Your task to perform on an android device: Open the calendar and show me this week's events? Image 0: 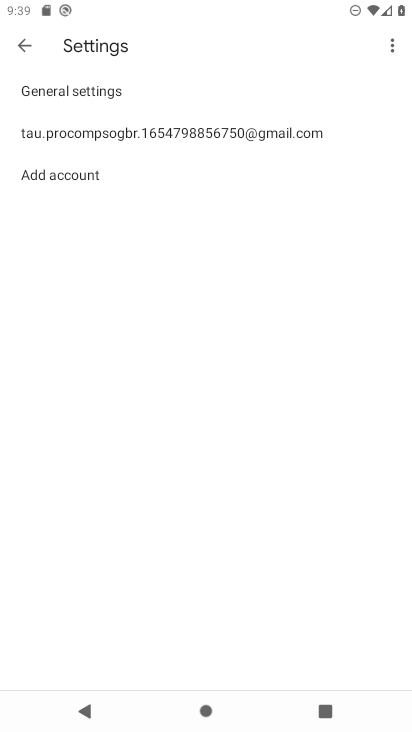
Step 0: press home button
Your task to perform on an android device: Open the calendar and show me this week's events? Image 1: 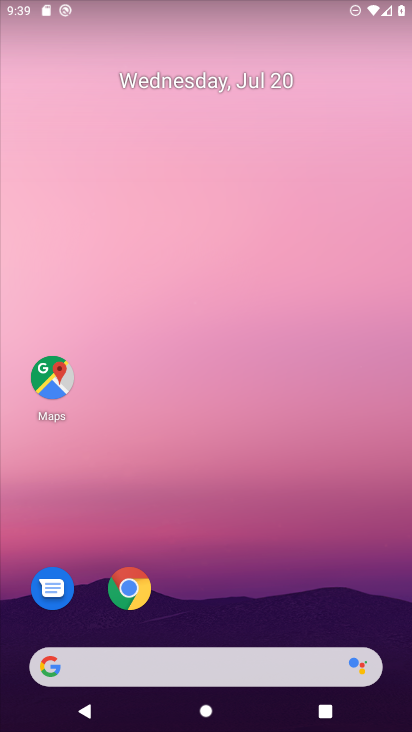
Step 1: click (189, 87)
Your task to perform on an android device: Open the calendar and show me this week's events? Image 2: 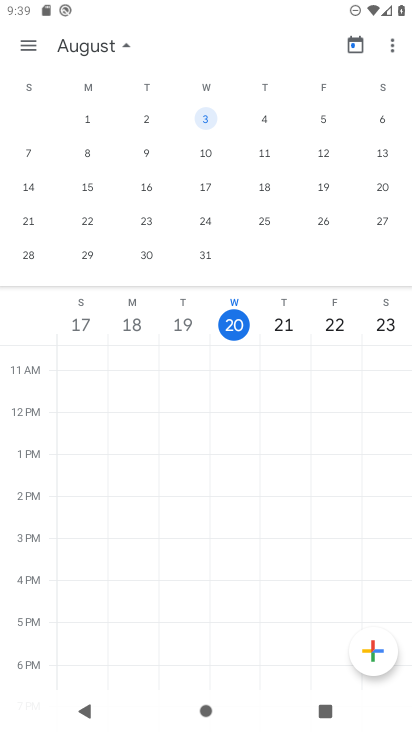
Step 2: click (69, 46)
Your task to perform on an android device: Open the calendar and show me this week's events? Image 3: 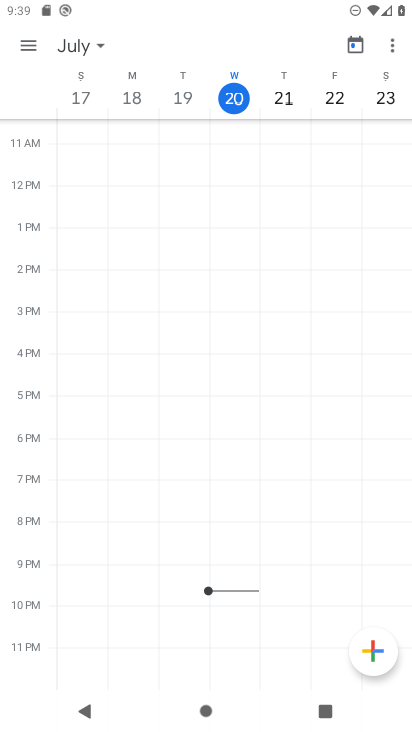
Step 3: task complete